Your task to perform on an android device: Clear the cart on walmart. Search for macbook on walmart, select the first entry, and add it to the cart. Image 0: 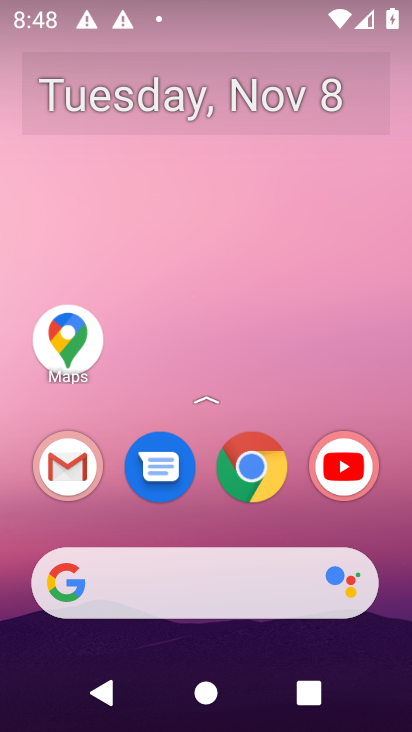
Step 0: click (220, 608)
Your task to perform on an android device: Clear the cart on walmart. Search for macbook on walmart, select the first entry, and add it to the cart. Image 1: 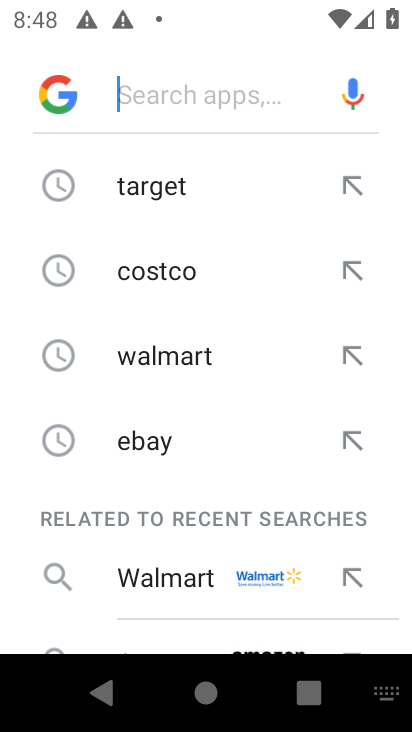
Step 1: click (249, 356)
Your task to perform on an android device: Clear the cart on walmart. Search for macbook on walmart, select the first entry, and add it to the cart. Image 2: 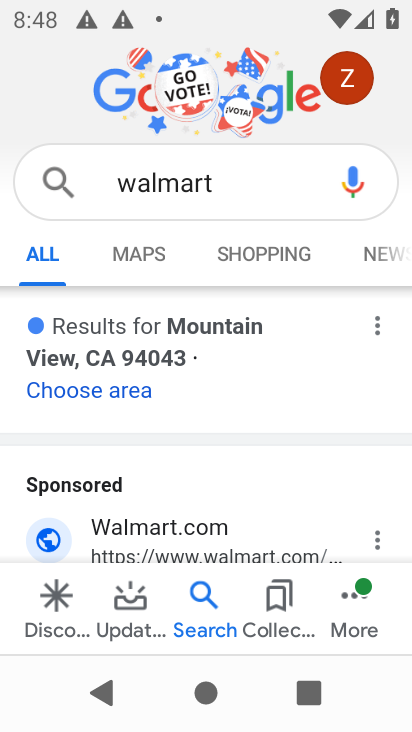
Step 2: click (109, 527)
Your task to perform on an android device: Clear the cart on walmart. Search for macbook on walmart, select the first entry, and add it to the cart. Image 3: 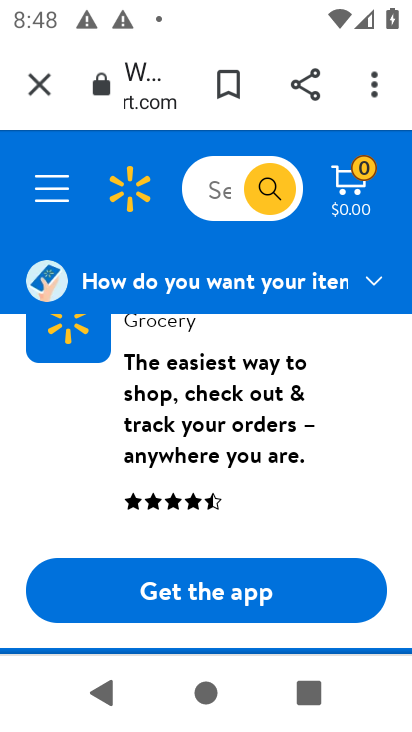
Step 3: click (206, 179)
Your task to perform on an android device: Clear the cart on walmart. Search for macbook on walmart, select the first entry, and add it to the cart. Image 4: 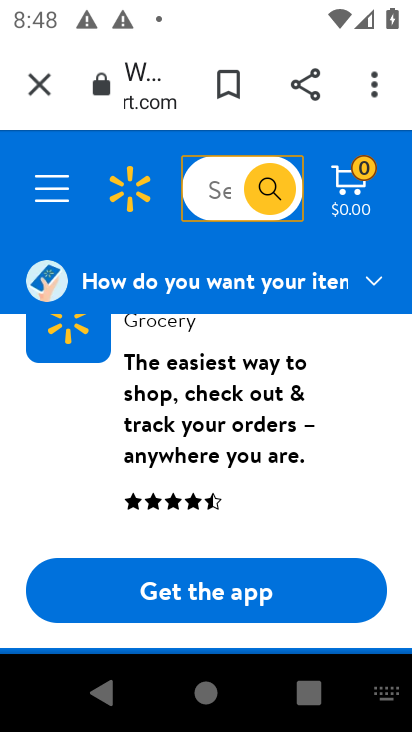
Step 4: type "macbook"
Your task to perform on an android device: Clear the cart on walmart. Search for macbook on walmart, select the first entry, and add it to the cart. Image 5: 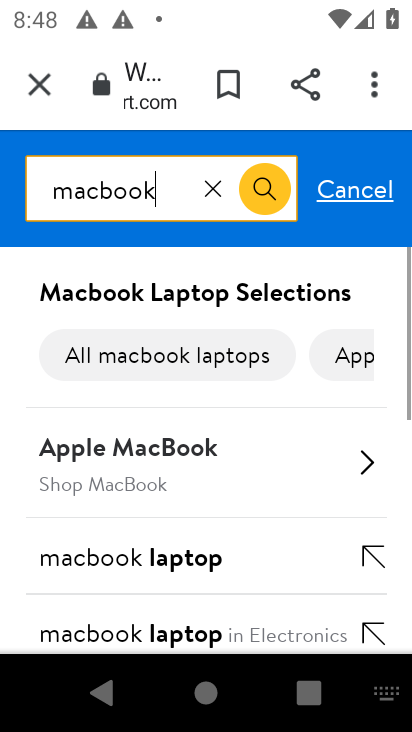
Step 5: click (223, 438)
Your task to perform on an android device: Clear the cart on walmart. Search for macbook on walmart, select the first entry, and add it to the cart. Image 6: 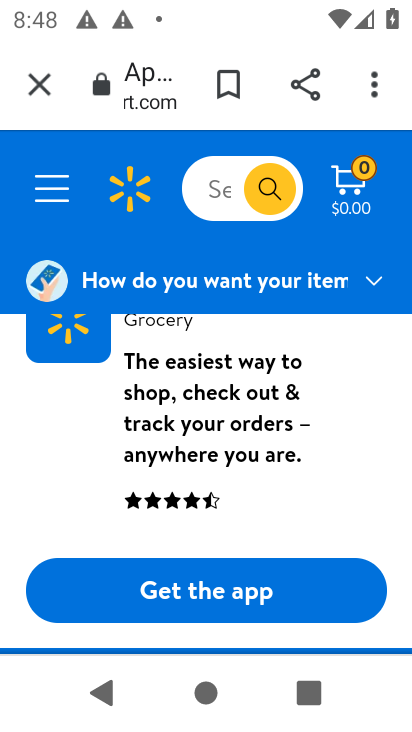
Step 6: task complete